Your task to perform on an android device: manage bookmarks in the chrome app Image 0: 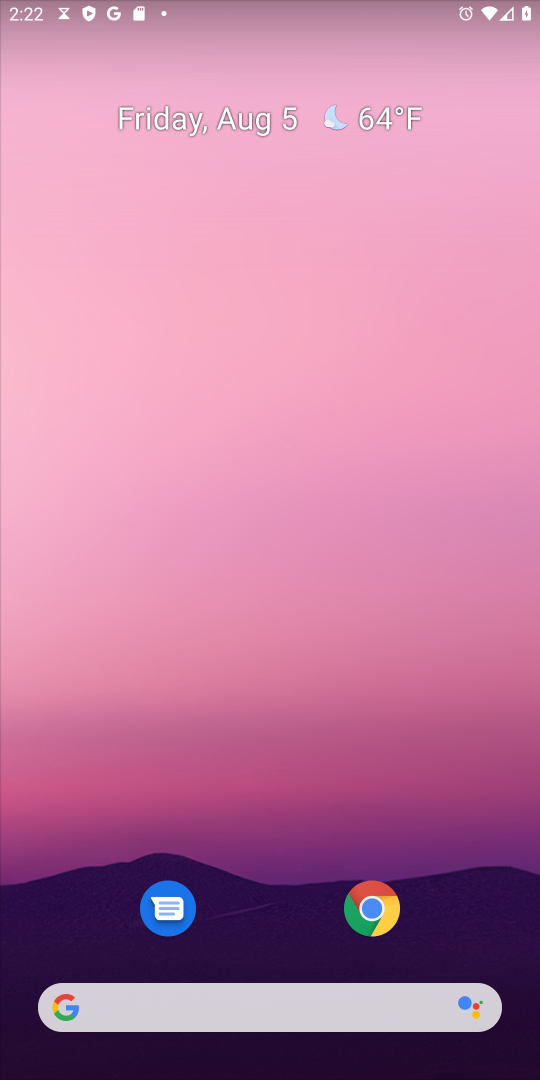
Step 0: click (357, 269)
Your task to perform on an android device: manage bookmarks in the chrome app Image 1: 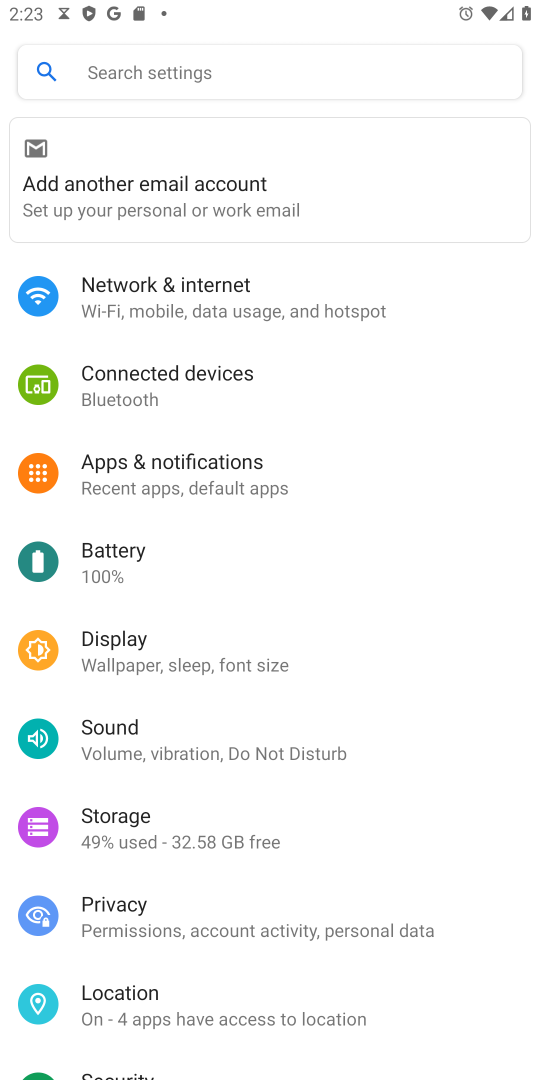
Step 1: press home button
Your task to perform on an android device: manage bookmarks in the chrome app Image 2: 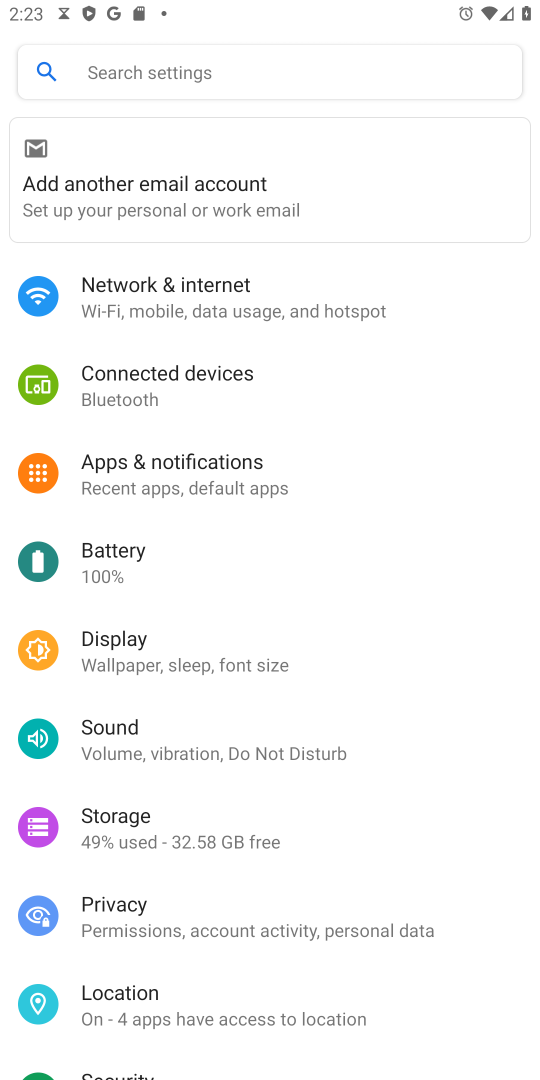
Step 2: press home button
Your task to perform on an android device: manage bookmarks in the chrome app Image 3: 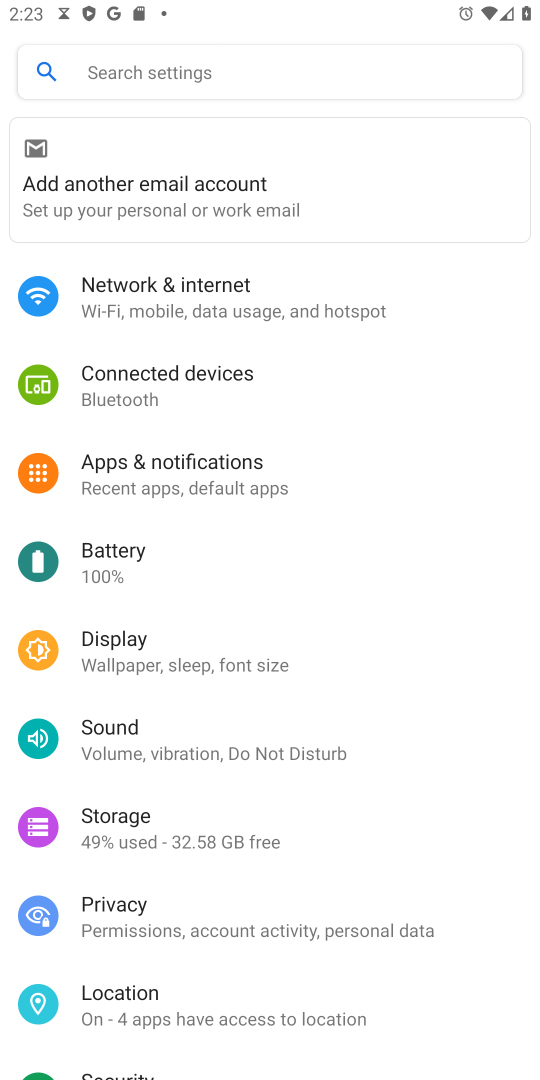
Step 3: click (408, 185)
Your task to perform on an android device: manage bookmarks in the chrome app Image 4: 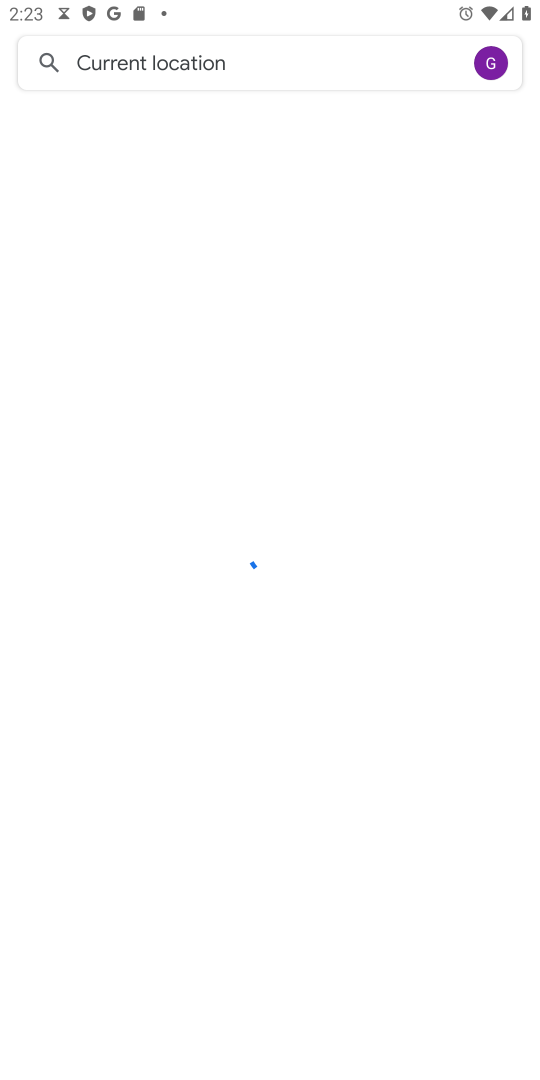
Step 4: press home button
Your task to perform on an android device: manage bookmarks in the chrome app Image 5: 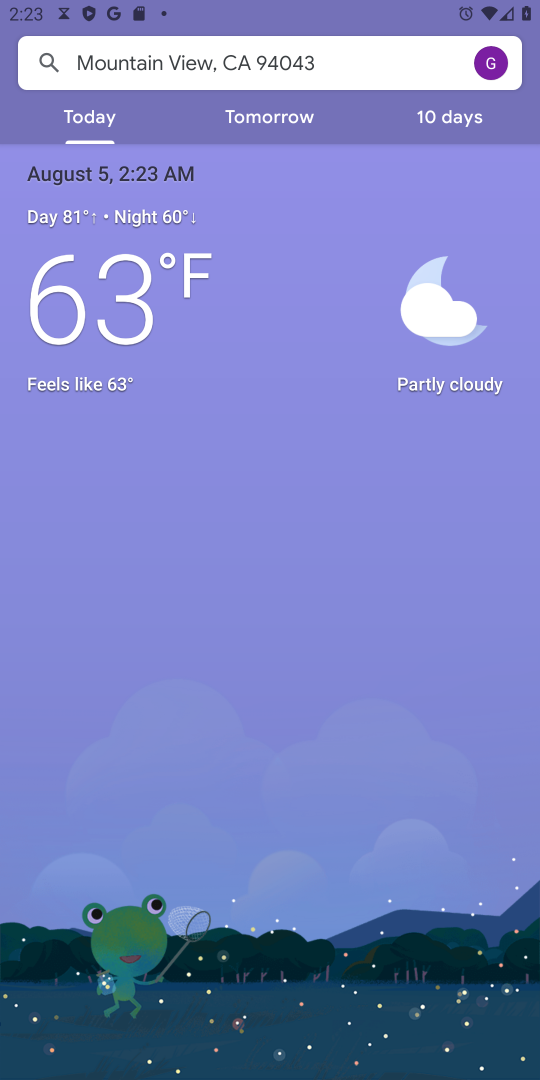
Step 5: press home button
Your task to perform on an android device: manage bookmarks in the chrome app Image 6: 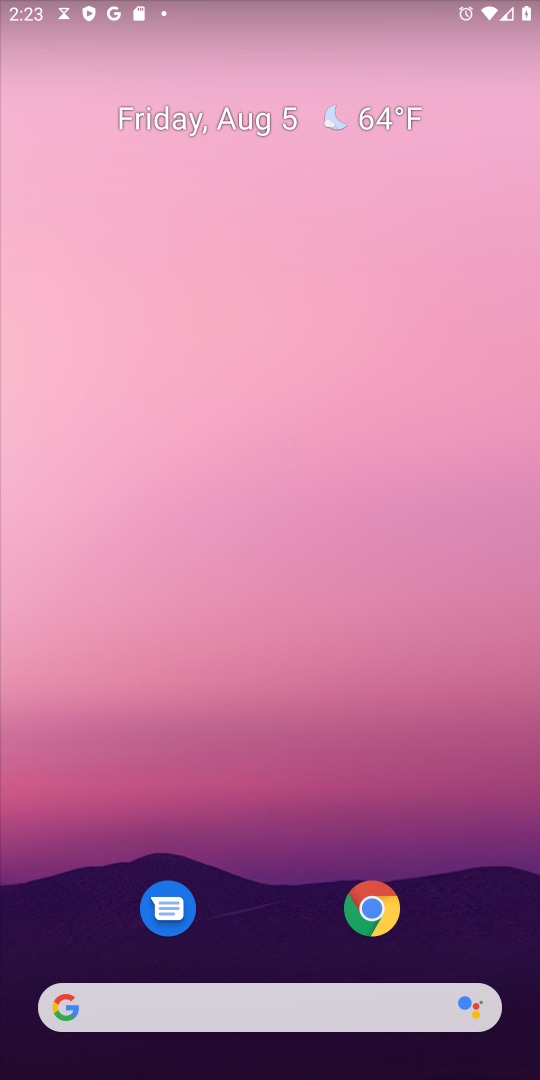
Step 6: click (366, 898)
Your task to perform on an android device: manage bookmarks in the chrome app Image 7: 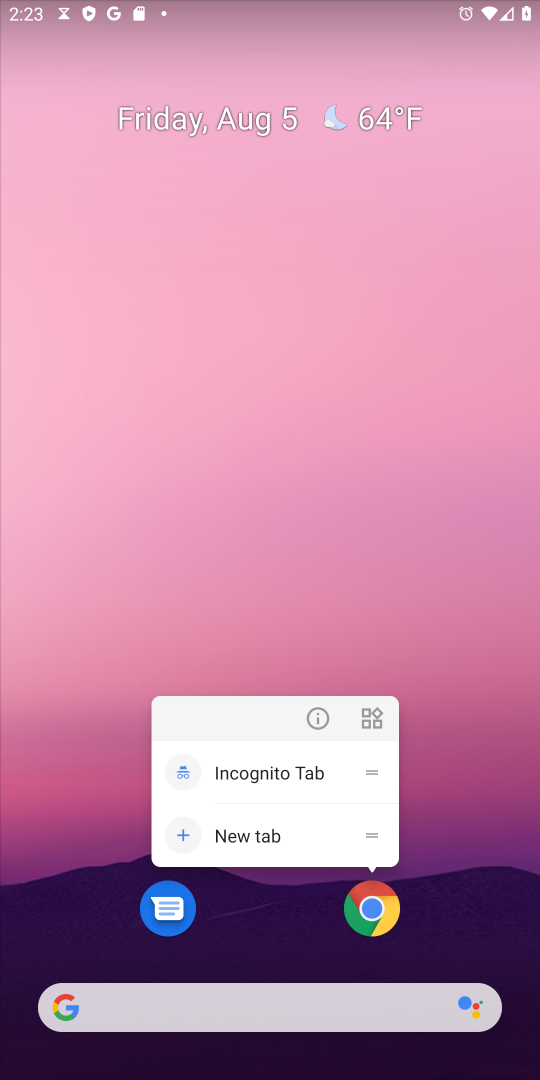
Step 7: click (366, 898)
Your task to perform on an android device: manage bookmarks in the chrome app Image 8: 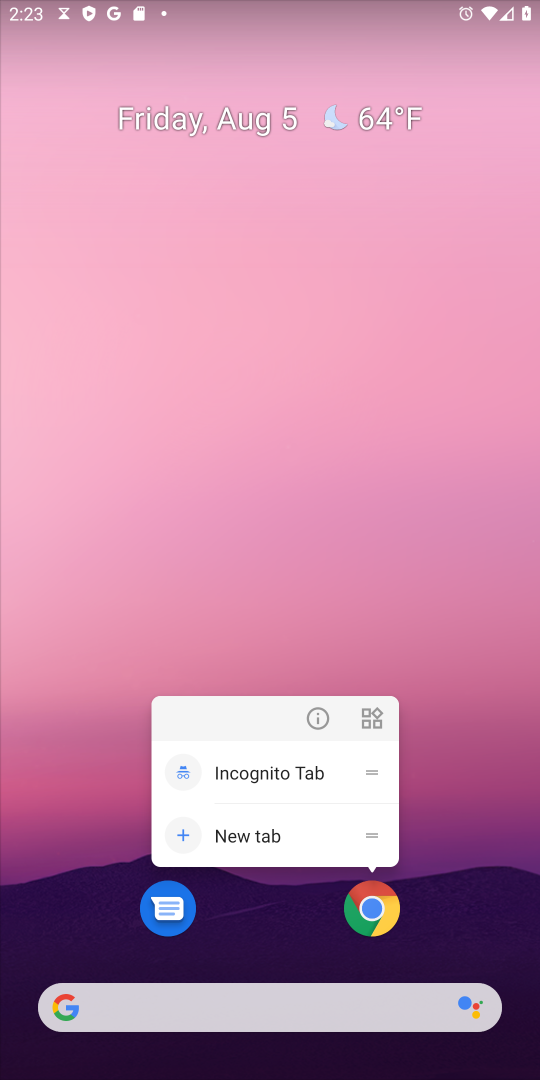
Step 8: click (366, 898)
Your task to perform on an android device: manage bookmarks in the chrome app Image 9: 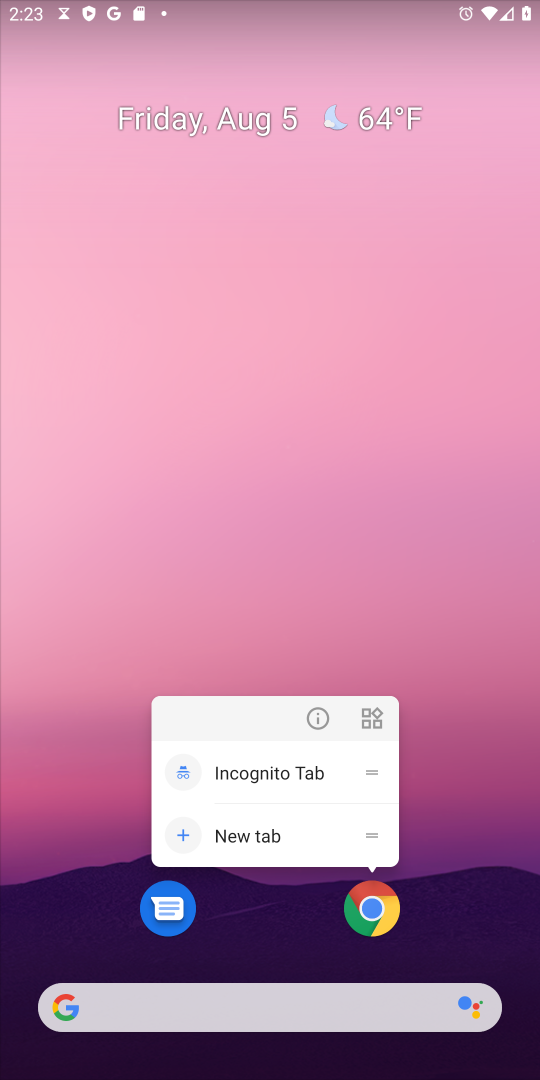
Step 9: click (356, 898)
Your task to perform on an android device: manage bookmarks in the chrome app Image 10: 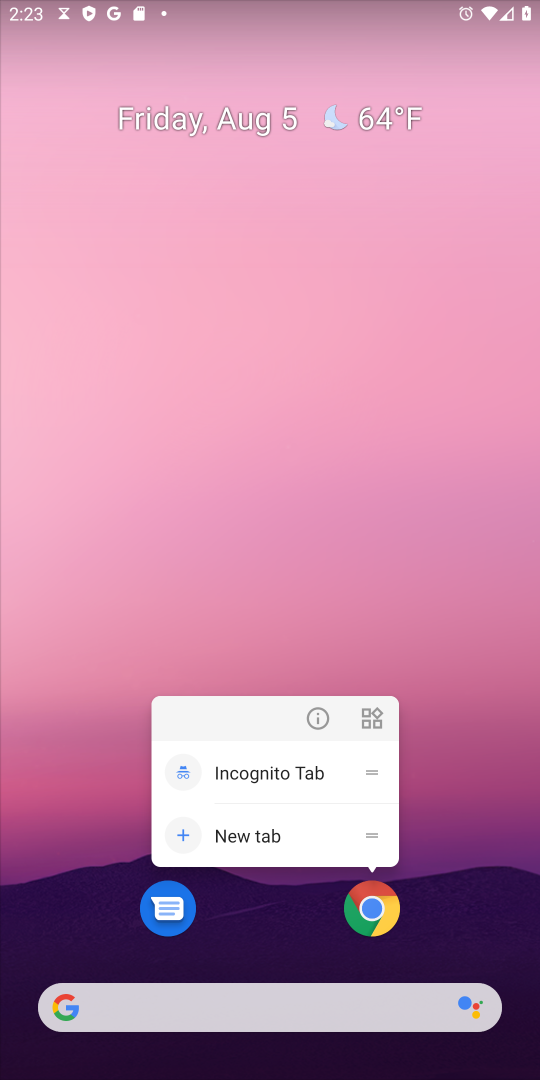
Step 10: click (356, 898)
Your task to perform on an android device: manage bookmarks in the chrome app Image 11: 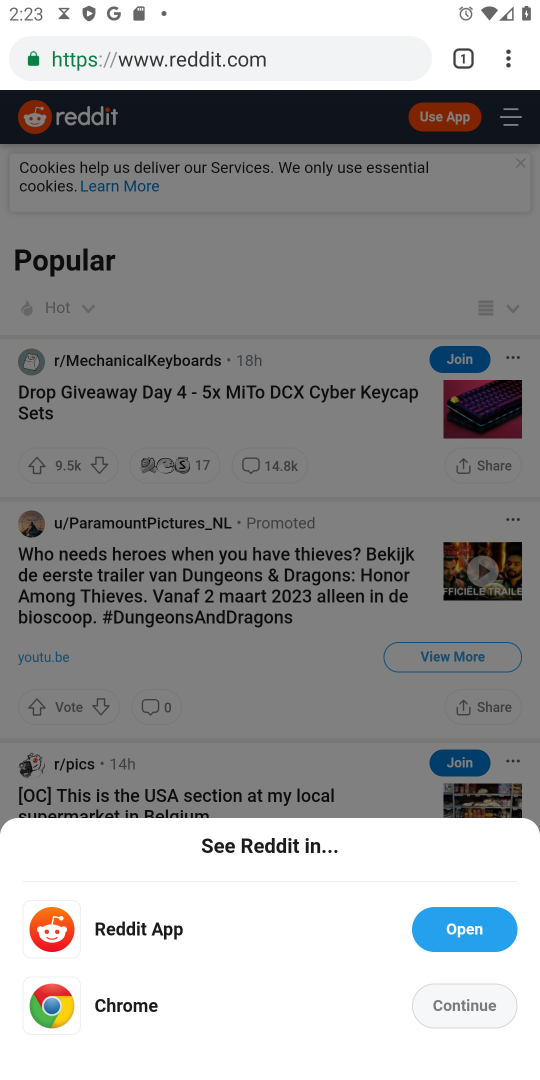
Step 11: drag from (505, 61) to (288, 225)
Your task to perform on an android device: manage bookmarks in the chrome app Image 12: 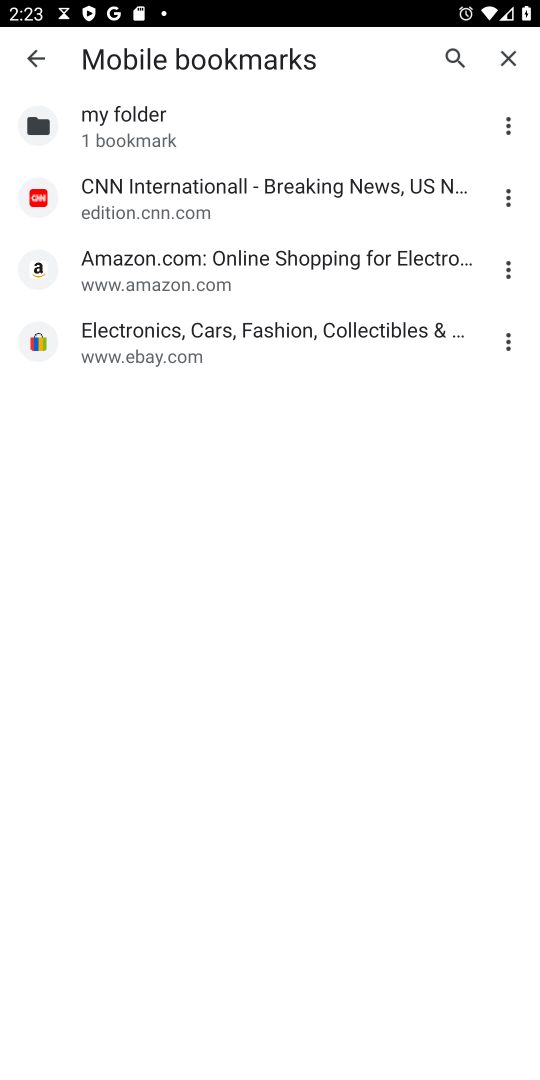
Step 12: click (496, 250)
Your task to perform on an android device: manage bookmarks in the chrome app Image 13: 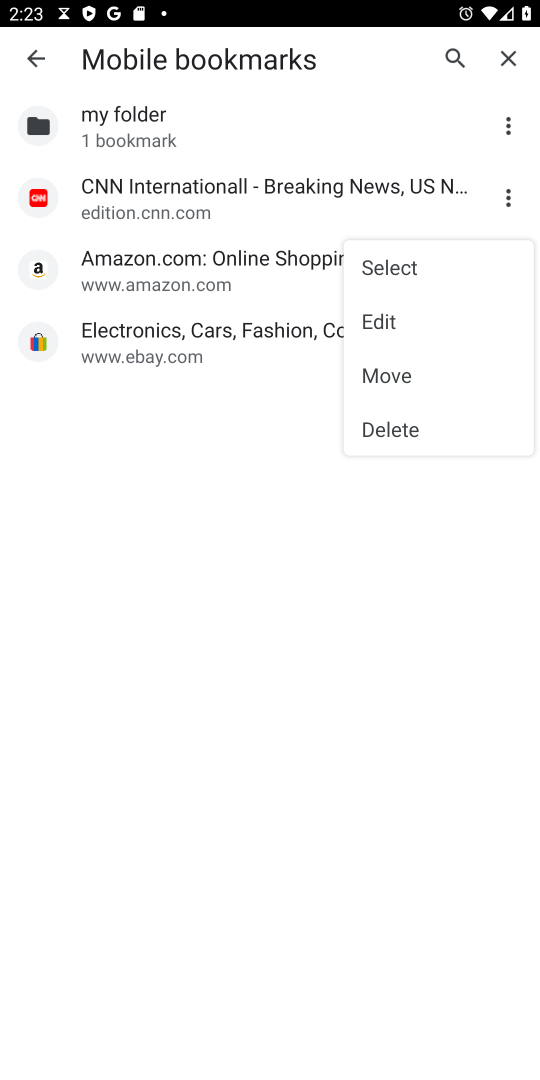
Step 13: click (383, 424)
Your task to perform on an android device: manage bookmarks in the chrome app Image 14: 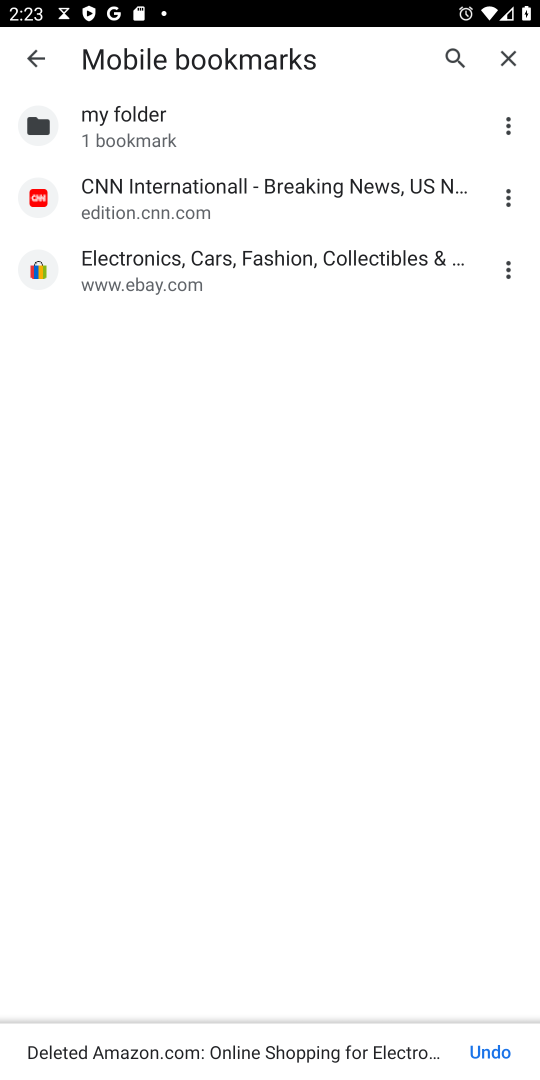
Step 14: task complete